Your task to perform on an android device: turn off data saver in the chrome app Image 0: 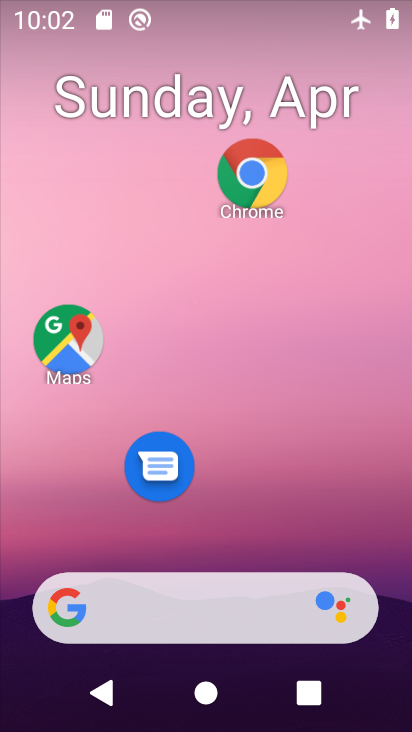
Step 0: drag from (298, 480) to (291, 31)
Your task to perform on an android device: turn off data saver in the chrome app Image 1: 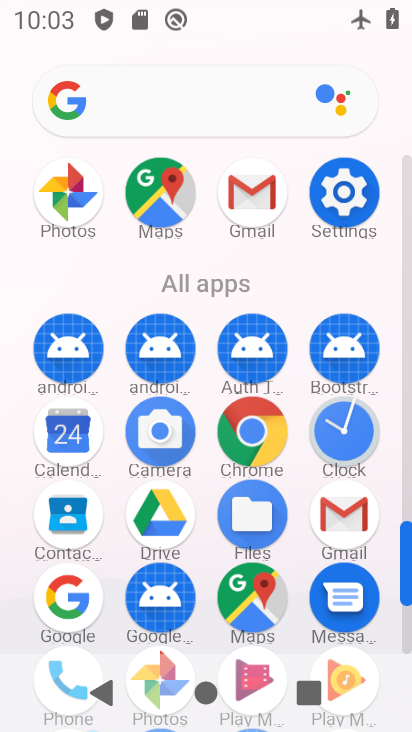
Step 1: click (254, 440)
Your task to perform on an android device: turn off data saver in the chrome app Image 2: 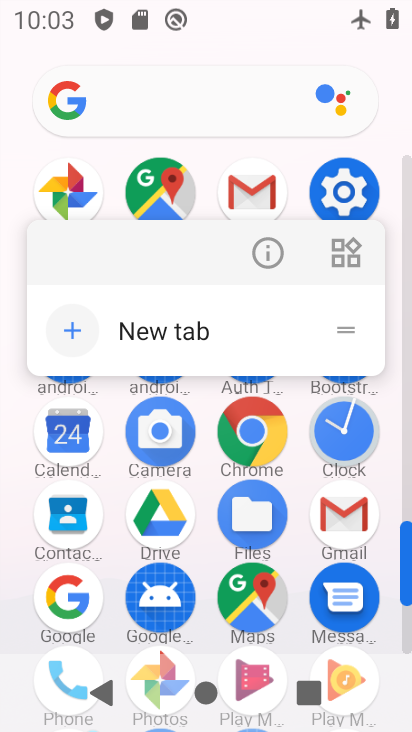
Step 2: click (250, 444)
Your task to perform on an android device: turn off data saver in the chrome app Image 3: 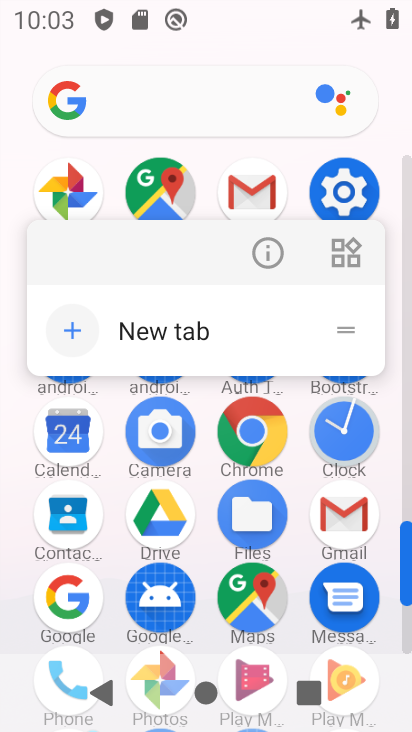
Step 3: click (250, 444)
Your task to perform on an android device: turn off data saver in the chrome app Image 4: 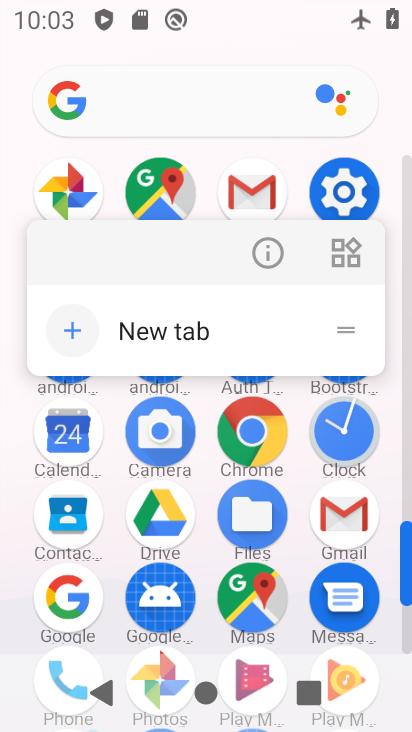
Step 4: click (248, 442)
Your task to perform on an android device: turn off data saver in the chrome app Image 5: 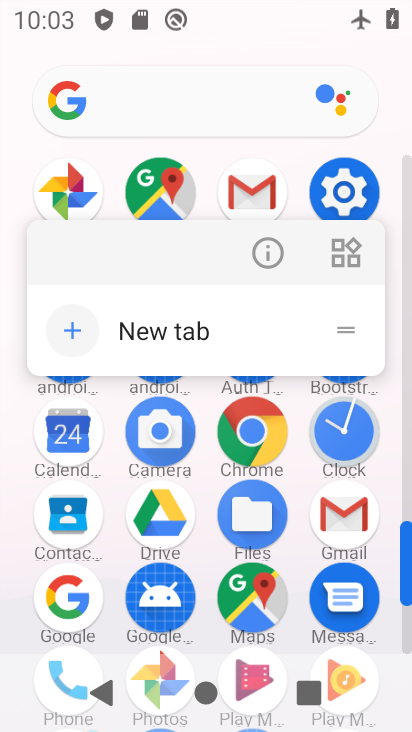
Step 5: click (248, 443)
Your task to perform on an android device: turn off data saver in the chrome app Image 6: 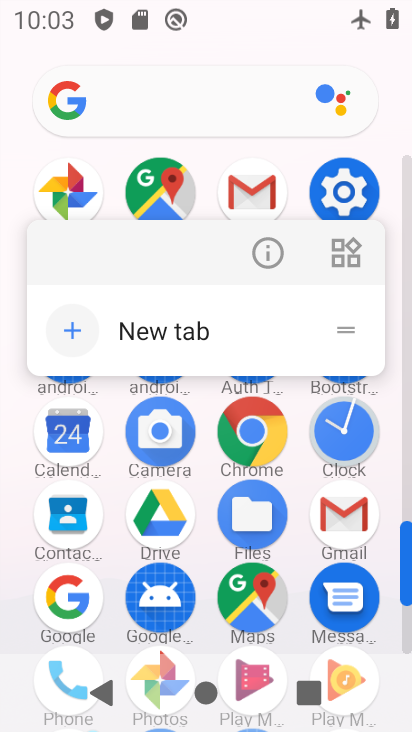
Step 6: click (248, 443)
Your task to perform on an android device: turn off data saver in the chrome app Image 7: 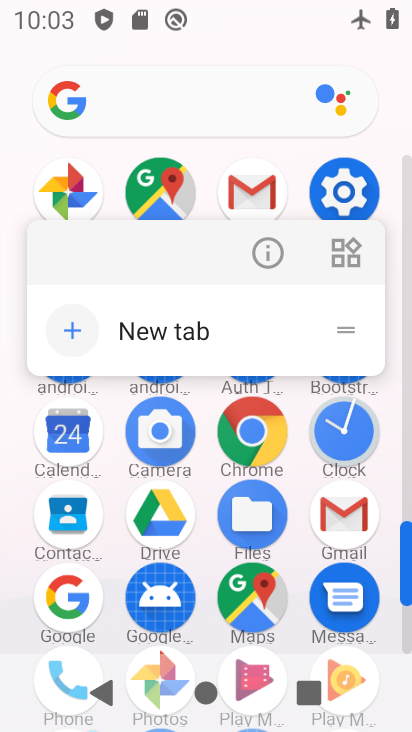
Step 7: click (248, 443)
Your task to perform on an android device: turn off data saver in the chrome app Image 8: 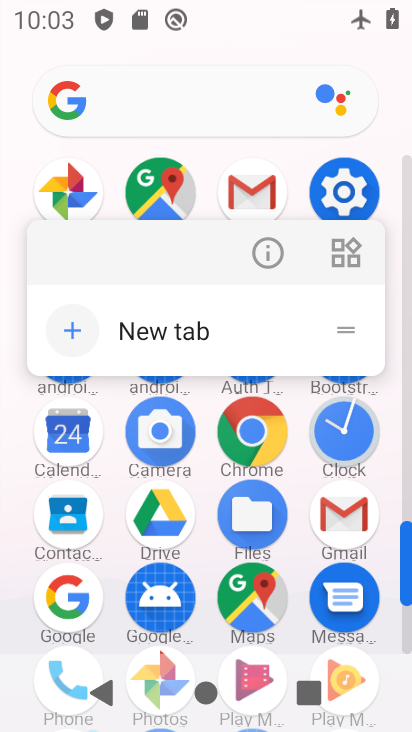
Step 8: click (248, 441)
Your task to perform on an android device: turn off data saver in the chrome app Image 9: 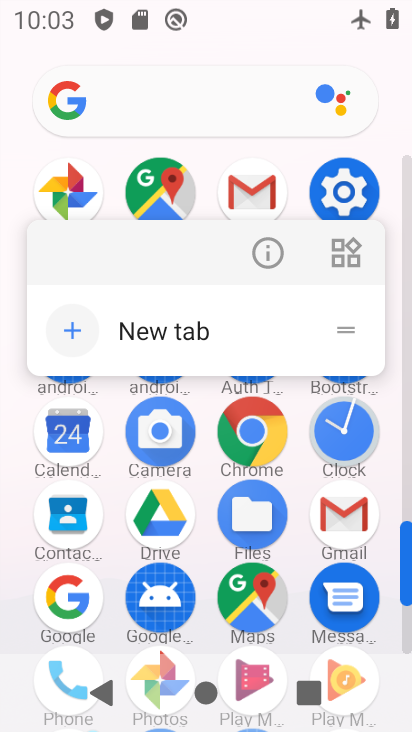
Step 9: click (248, 442)
Your task to perform on an android device: turn off data saver in the chrome app Image 10: 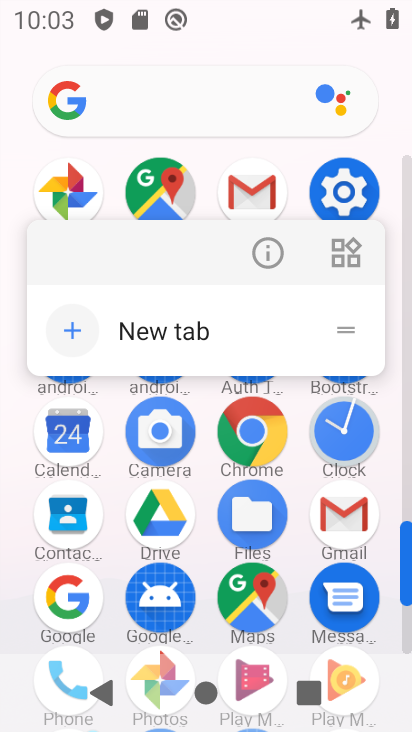
Step 10: click (248, 440)
Your task to perform on an android device: turn off data saver in the chrome app Image 11: 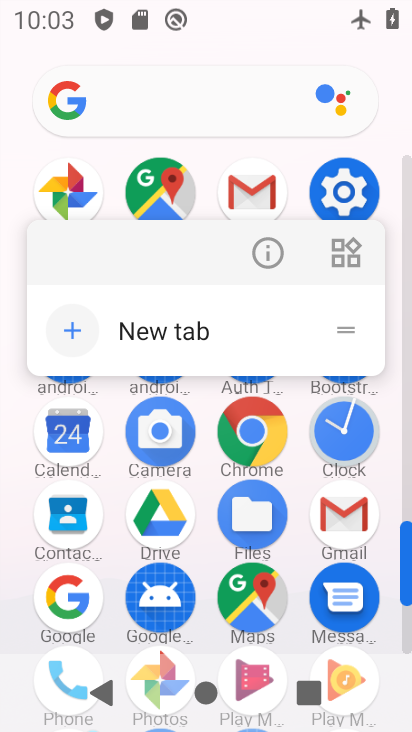
Step 11: click (248, 441)
Your task to perform on an android device: turn off data saver in the chrome app Image 12: 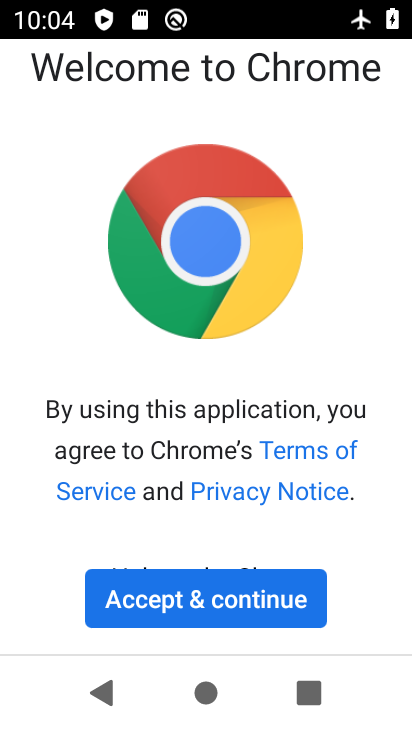
Step 12: click (219, 607)
Your task to perform on an android device: turn off data saver in the chrome app Image 13: 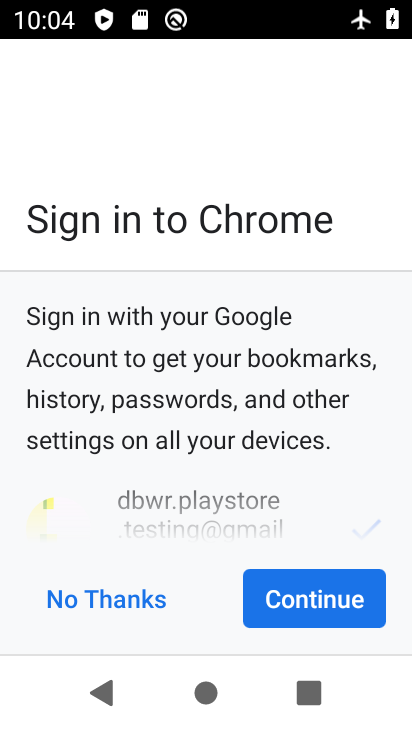
Step 13: click (139, 620)
Your task to perform on an android device: turn off data saver in the chrome app Image 14: 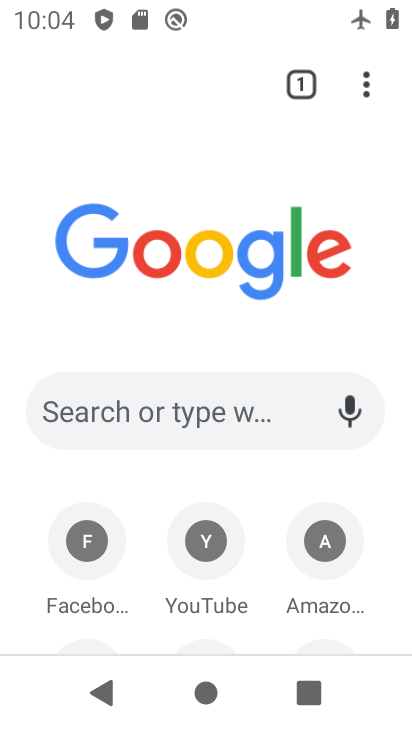
Step 14: drag from (361, 83) to (96, 525)
Your task to perform on an android device: turn off data saver in the chrome app Image 15: 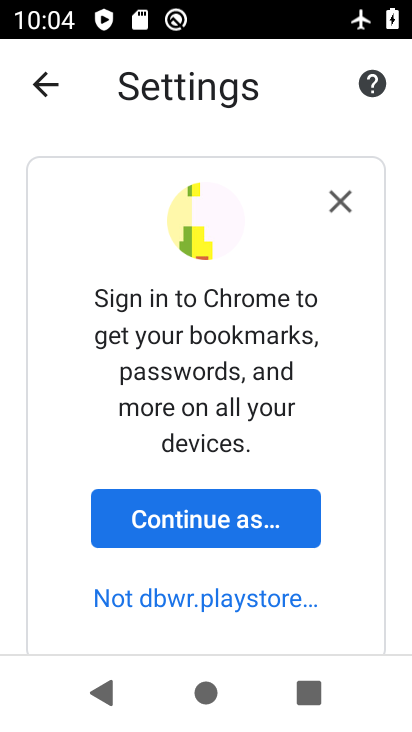
Step 15: click (216, 512)
Your task to perform on an android device: turn off data saver in the chrome app Image 16: 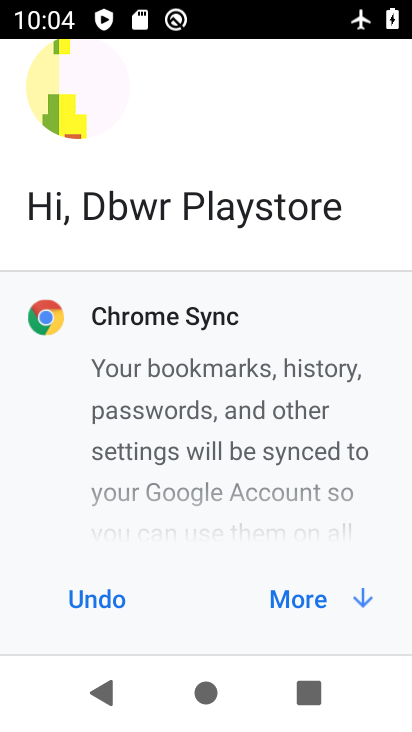
Step 16: click (304, 599)
Your task to perform on an android device: turn off data saver in the chrome app Image 17: 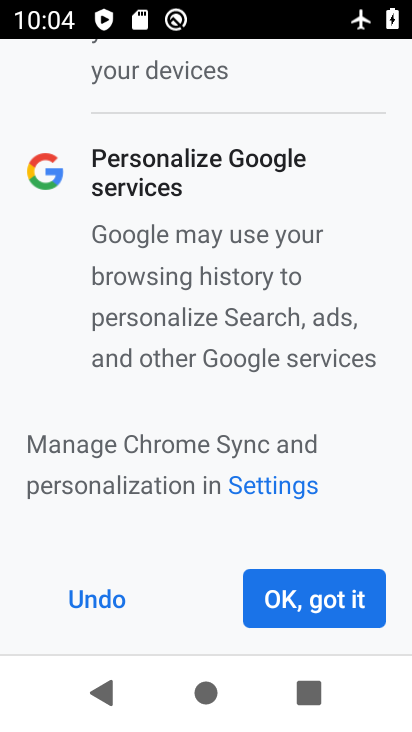
Step 17: click (298, 592)
Your task to perform on an android device: turn off data saver in the chrome app Image 18: 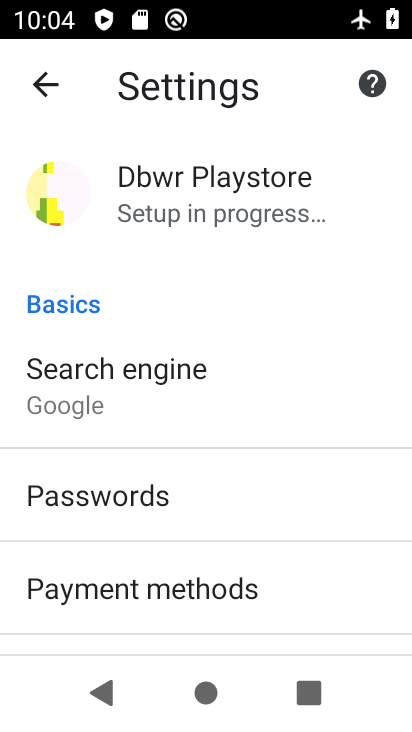
Step 18: drag from (271, 574) to (245, 385)
Your task to perform on an android device: turn off data saver in the chrome app Image 19: 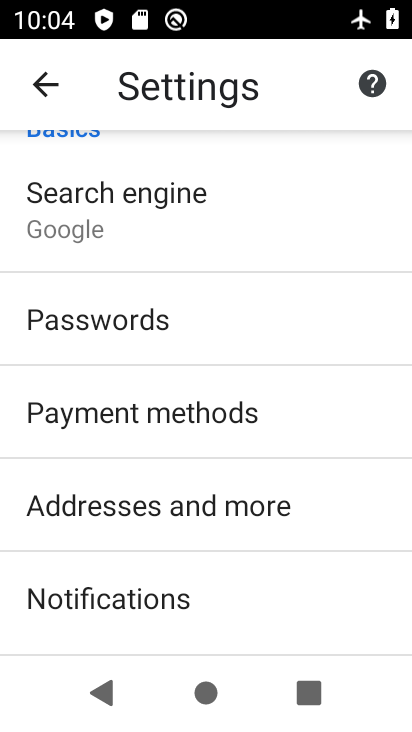
Step 19: drag from (203, 599) to (220, 336)
Your task to perform on an android device: turn off data saver in the chrome app Image 20: 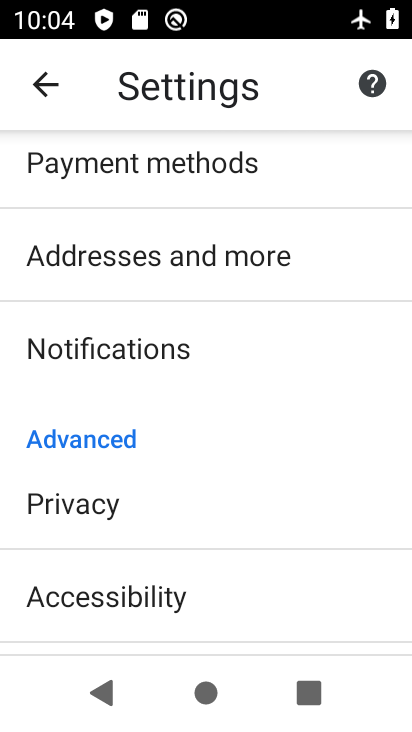
Step 20: drag from (259, 626) to (294, 356)
Your task to perform on an android device: turn off data saver in the chrome app Image 21: 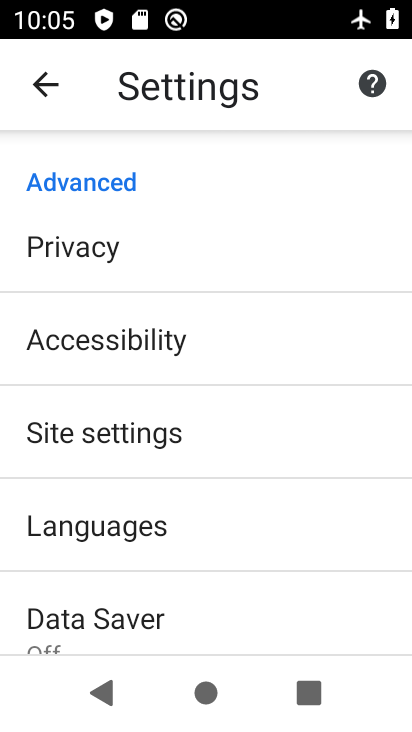
Step 21: drag from (225, 601) to (265, 304)
Your task to perform on an android device: turn off data saver in the chrome app Image 22: 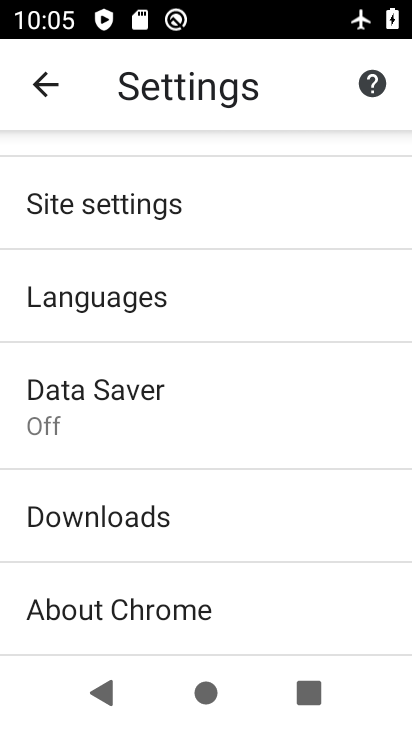
Step 22: click (148, 400)
Your task to perform on an android device: turn off data saver in the chrome app Image 23: 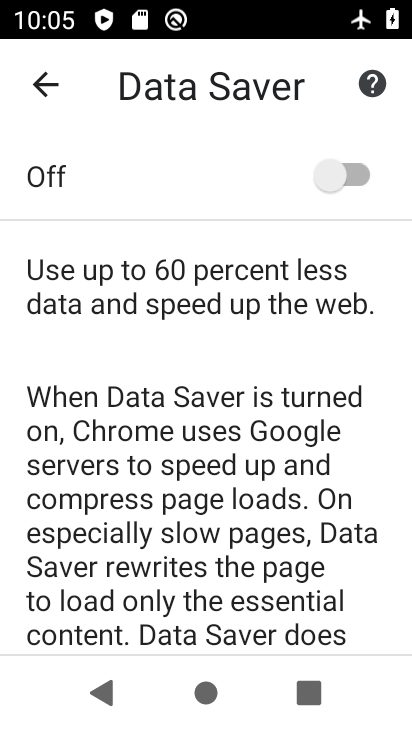
Step 23: task complete